Your task to perform on an android device: Go to display settings Image 0: 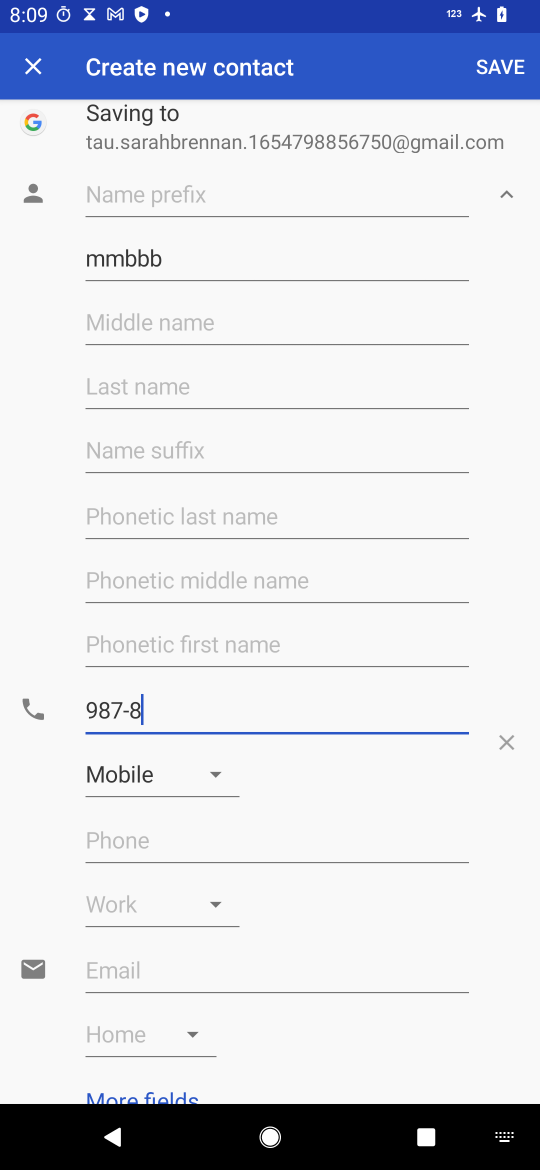
Step 0: press home button
Your task to perform on an android device: Go to display settings Image 1: 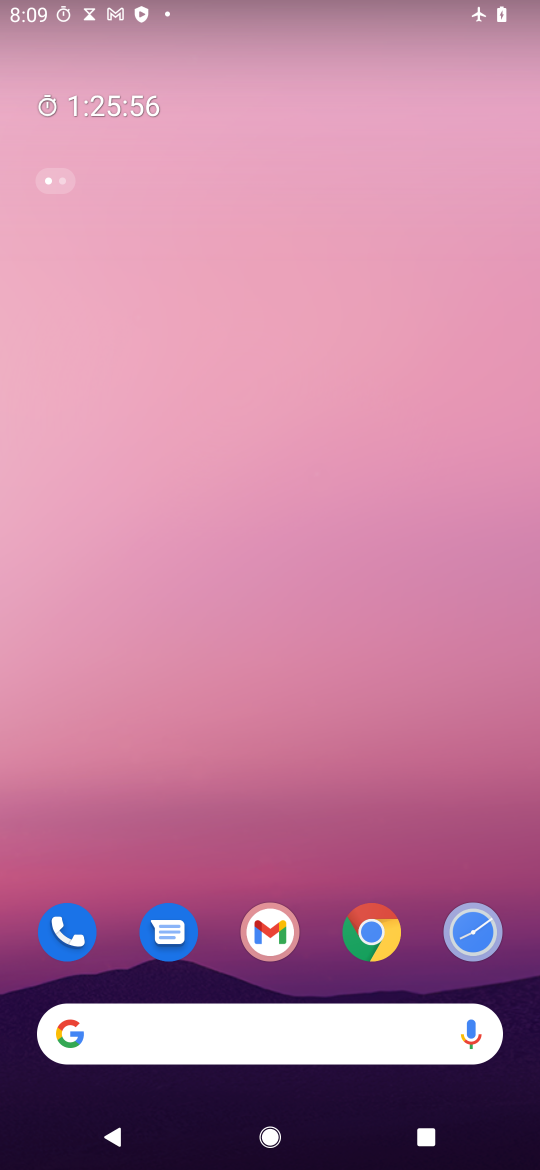
Step 1: drag from (325, 824) to (336, 76)
Your task to perform on an android device: Go to display settings Image 2: 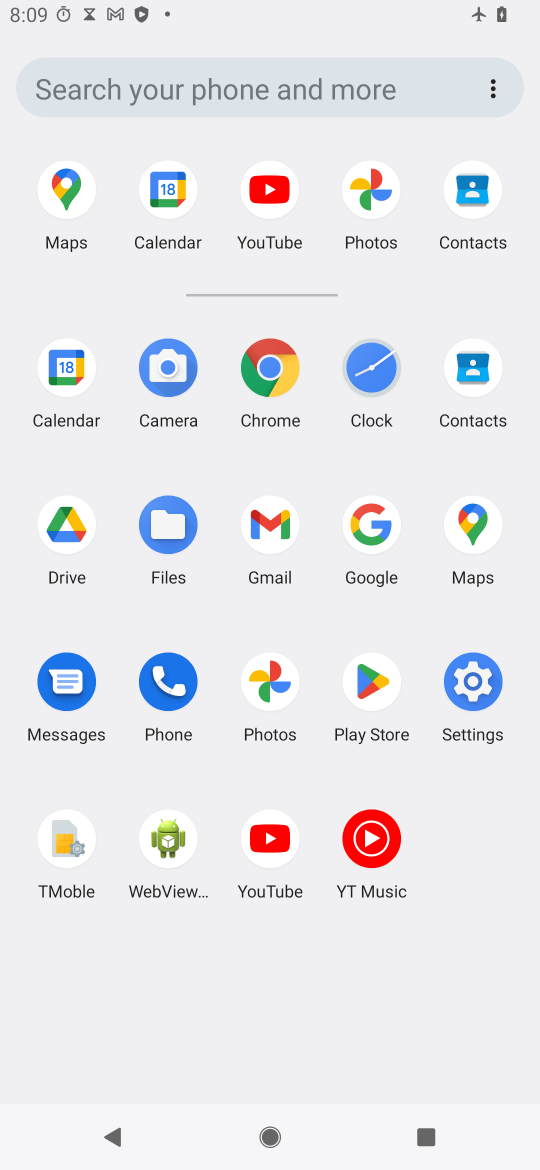
Step 2: click (473, 673)
Your task to perform on an android device: Go to display settings Image 3: 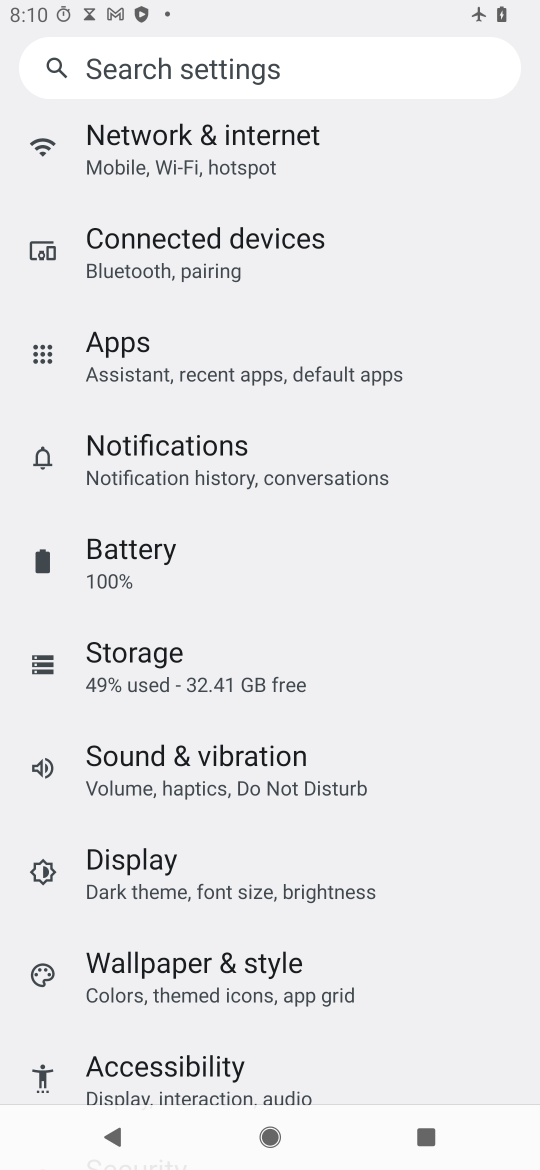
Step 3: click (196, 876)
Your task to perform on an android device: Go to display settings Image 4: 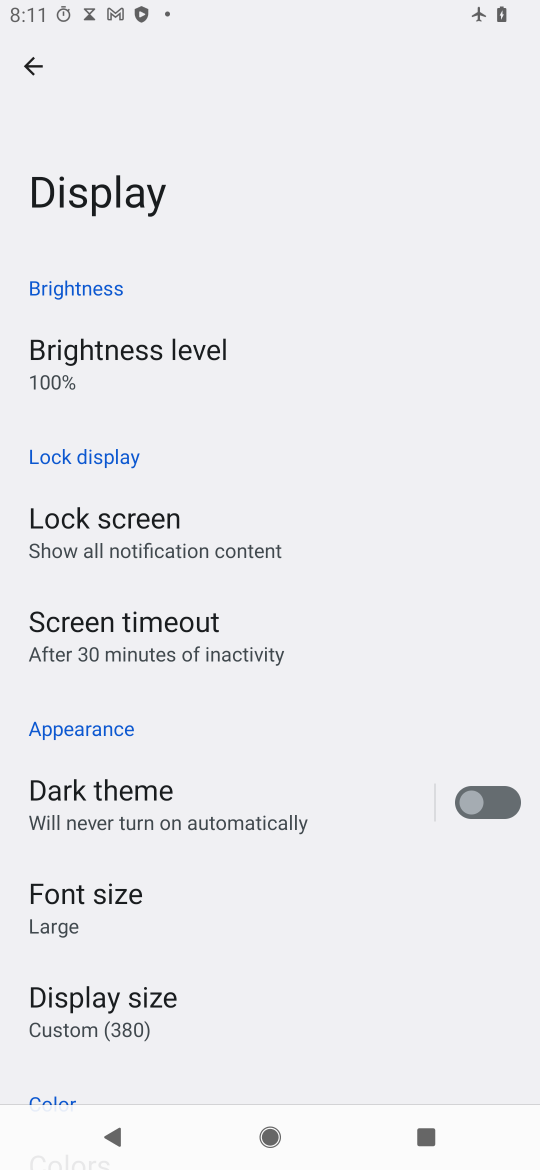
Step 4: task complete